Your task to perform on an android device: Go to Yahoo.com Image 0: 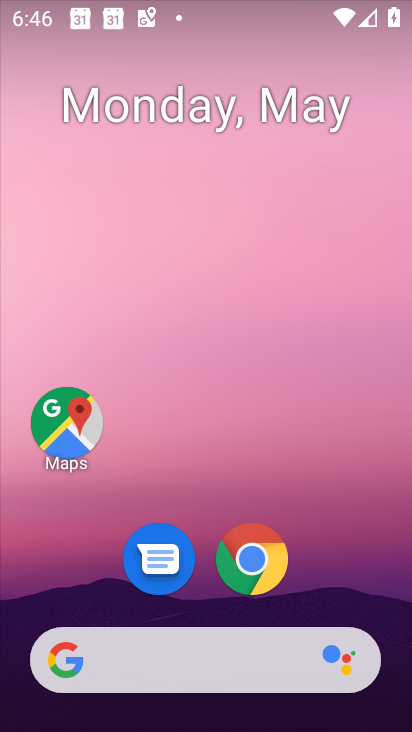
Step 0: drag from (386, 625) to (289, 133)
Your task to perform on an android device: Go to Yahoo.com Image 1: 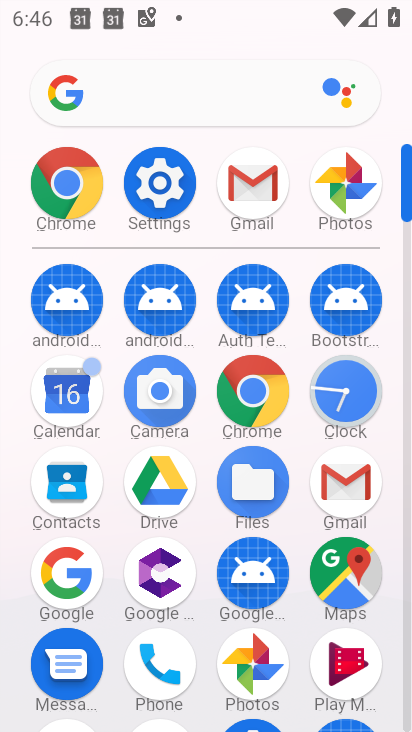
Step 1: click (68, 184)
Your task to perform on an android device: Go to Yahoo.com Image 2: 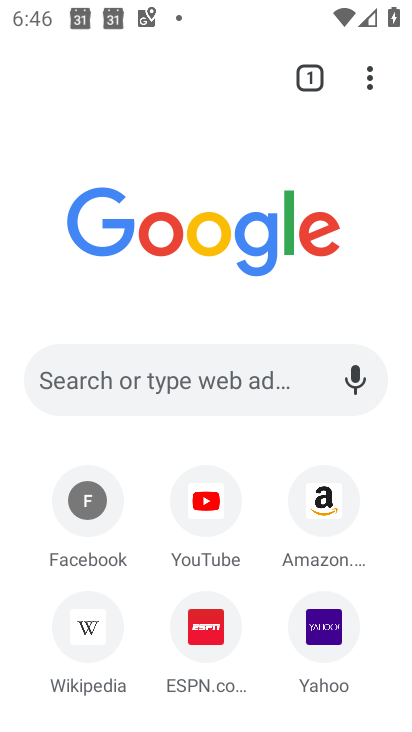
Step 2: click (327, 638)
Your task to perform on an android device: Go to Yahoo.com Image 3: 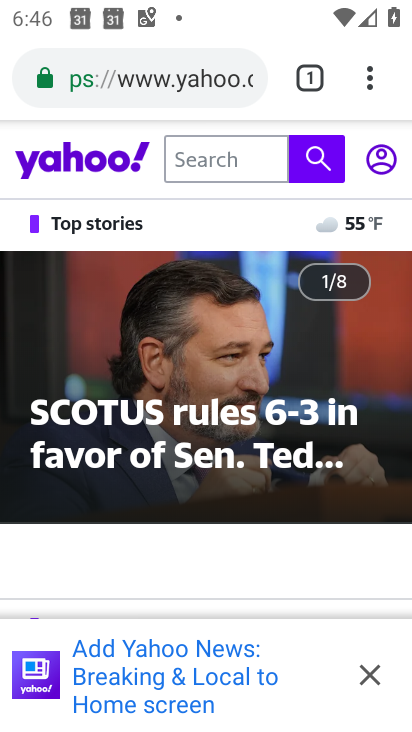
Step 3: task complete